Your task to perform on an android device: move an email to a new category in the gmail app Image 0: 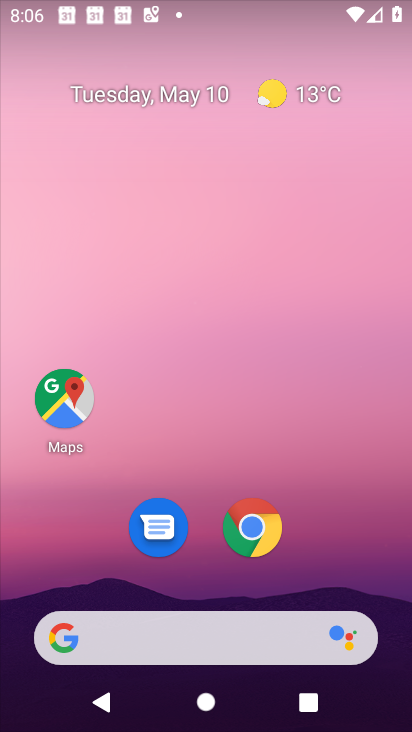
Step 0: drag from (34, 628) to (274, 126)
Your task to perform on an android device: move an email to a new category in the gmail app Image 1: 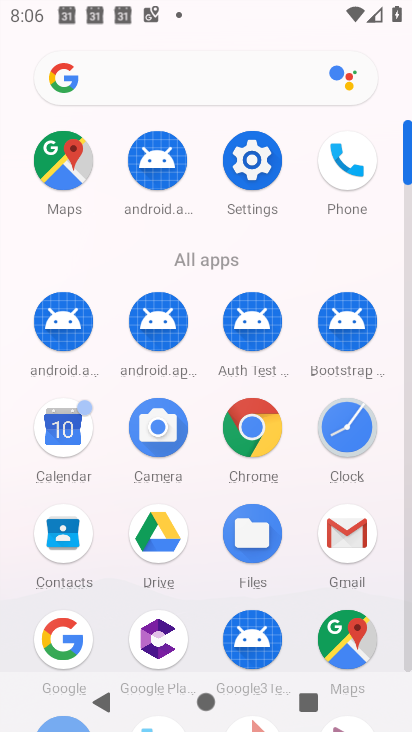
Step 1: click (338, 539)
Your task to perform on an android device: move an email to a new category in the gmail app Image 2: 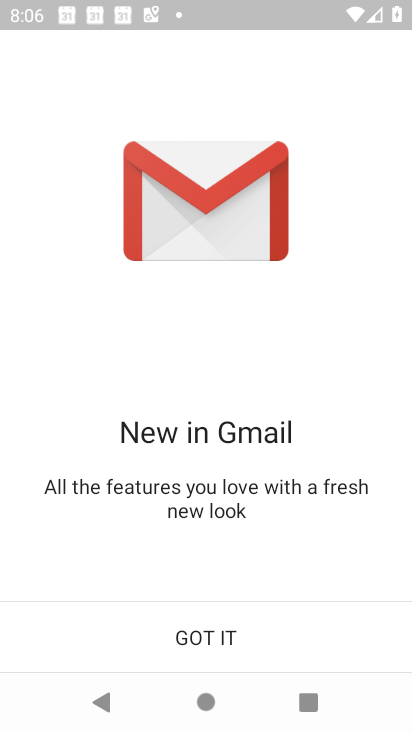
Step 2: click (231, 638)
Your task to perform on an android device: move an email to a new category in the gmail app Image 3: 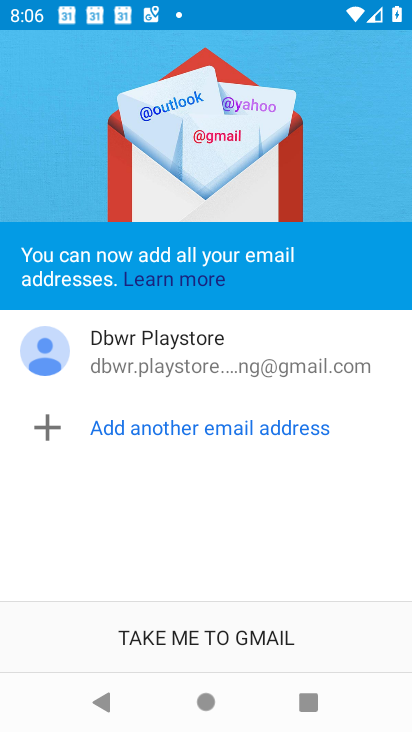
Step 3: click (183, 629)
Your task to perform on an android device: move an email to a new category in the gmail app Image 4: 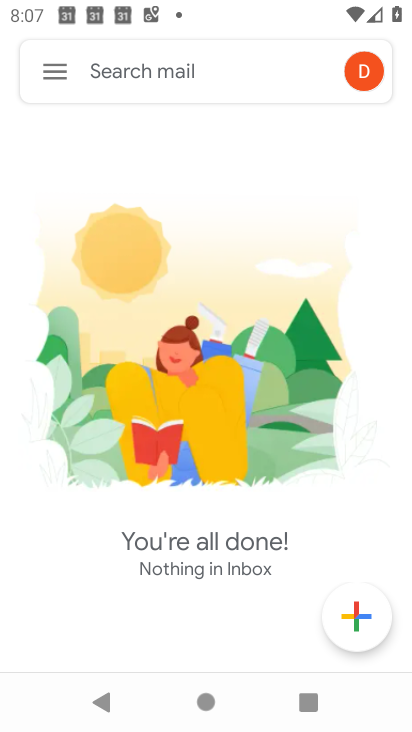
Step 4: click (50, 72)
Your task to perform on an android device: move an email to a new category in the gmail app Image 5: 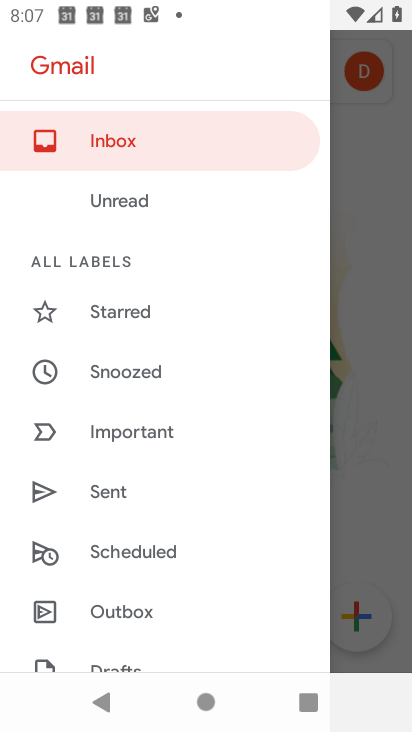
Step 5: click (196, 141)
Your task to perform on an android device: move an email to a new category in the gmail app Image 6: 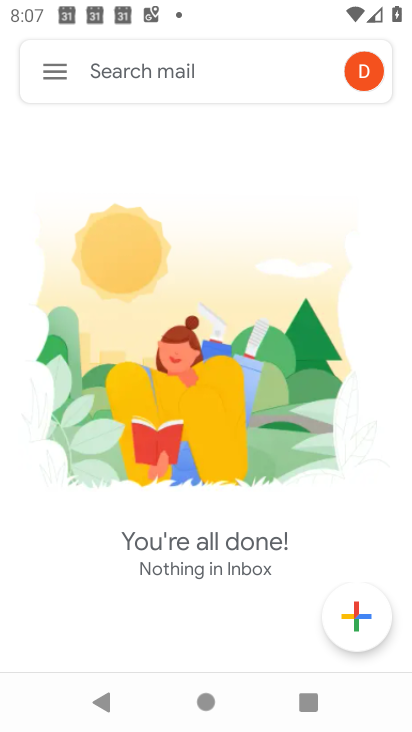
Step 6: task complete